Your task to perform on an android device: Add "razer blade" to the cart on costco.com Image 0: 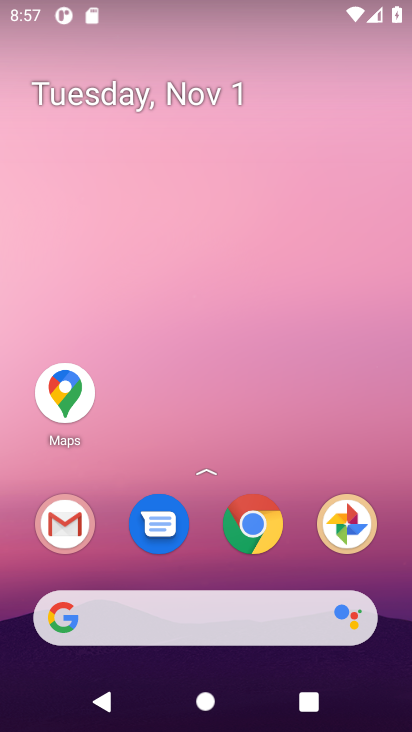
Step 0: press home button
Your task to perform on an android device: Add "razer blade" to the cart on costco.com Image 1: 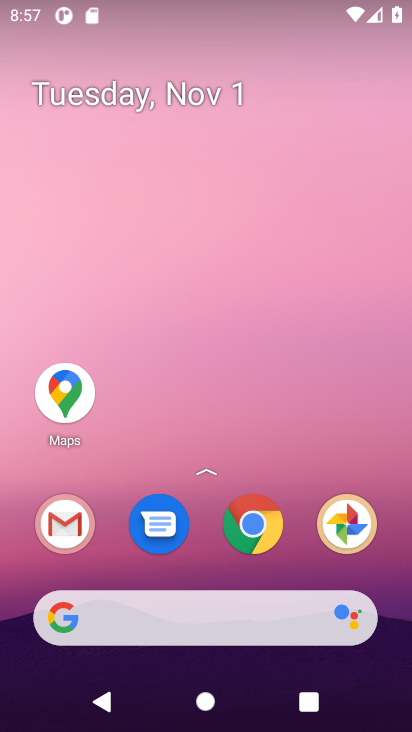
Step 1: click (95, 610)
Your task to perform on an android device: Add "razer blade" to the cart on costco.com Image 2: 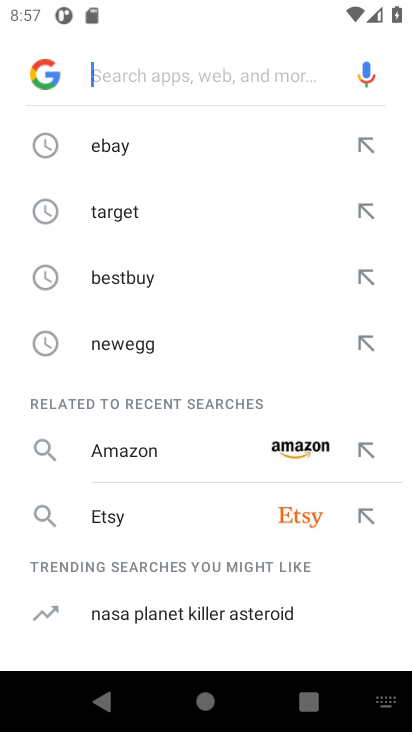
Step 2: type "costco.com"
Your task to perform on an android device: Add "razer blade" to the cart on costco.com Image 3: 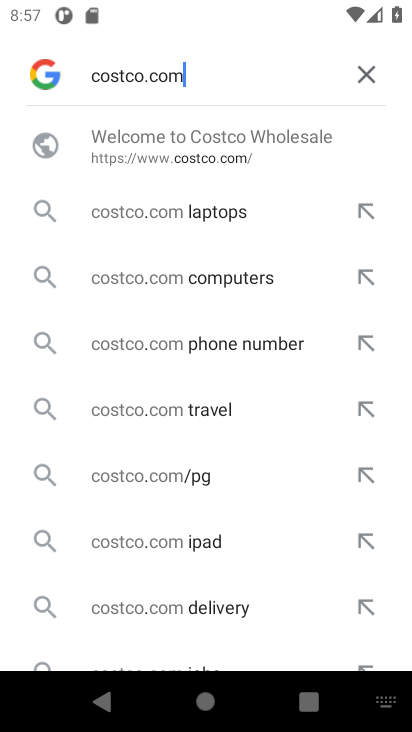
Step 3: press enter
Your task to perform on an android device: Add "razer blade" to the cart on costco.com Image 4: 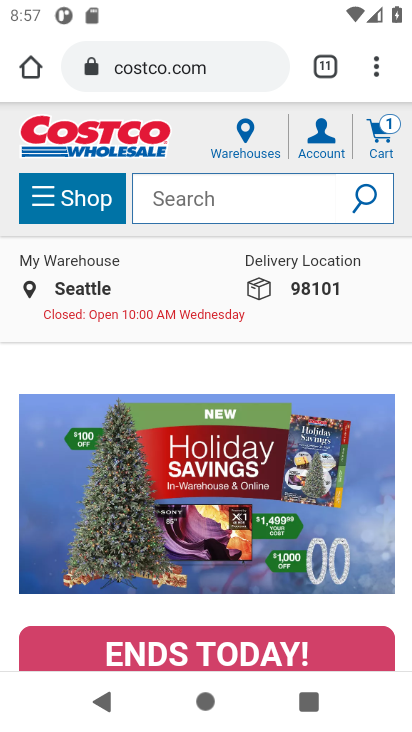
Step 4: click (169, 201)
Your task to perform on an android device: Add "razer blade" to the cart on costco.com Image 5: 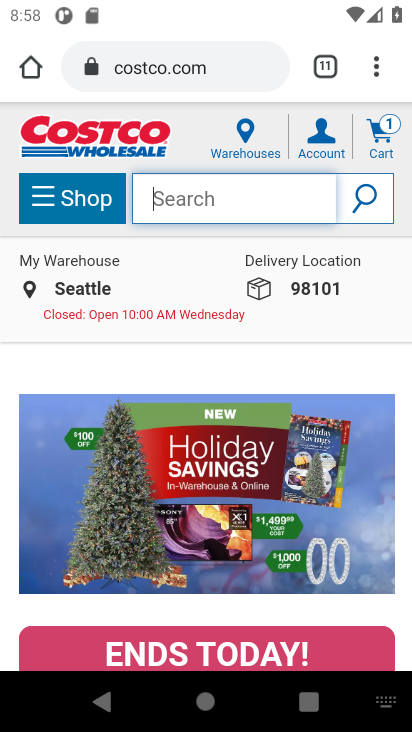
Step 5: type "razer blade"
Your task to perform on an android device: Add "razer blade" to the cart on costco.com Image 6: 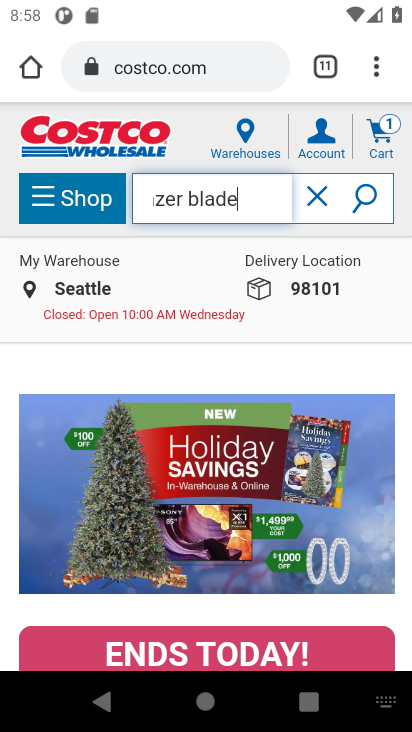
Step 6: press enter
Your task to perform on an android device: Add "razer blade" to the cart on costco.com Image 7: 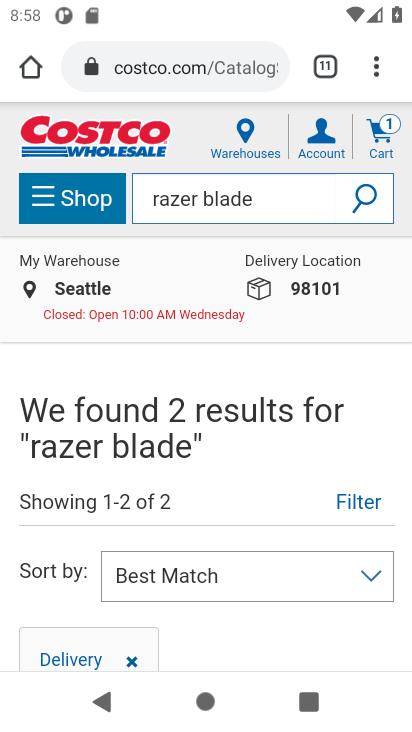
Step 7: drag from (330, 554) to (337, 313)
Your task to perform on an android device: Add "razer blade" to the cart on costco.com Image 8: 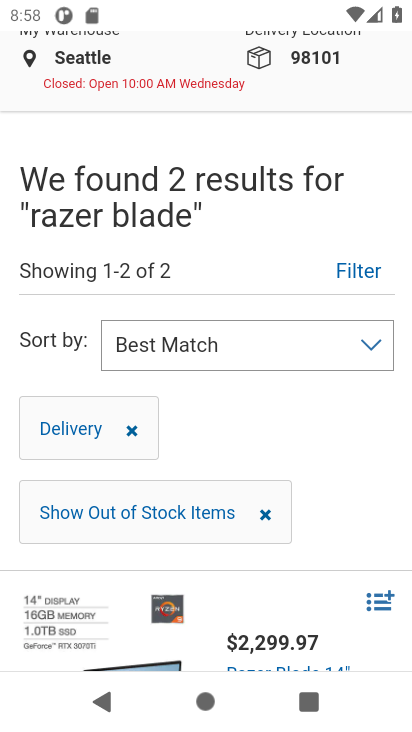
Step 8: drag from (292, 549) to (303, 312)
Your task to perform on an android device: Add "razer blade" to the cart on costco.com Image 9: 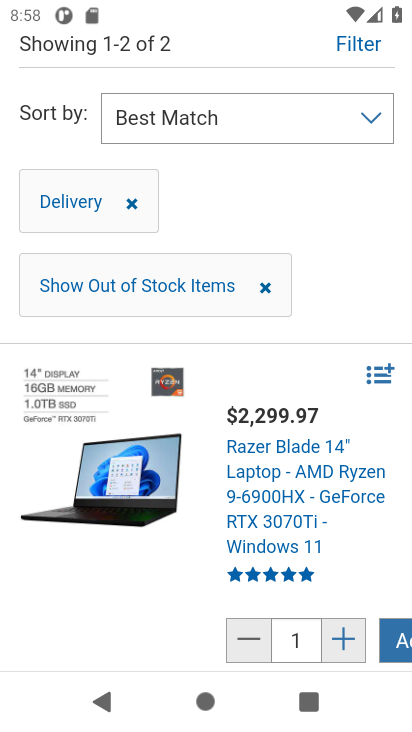
Step 9: drag from (238, 550) to (267, 344)
Your task to perform on an android device: Add "razer blade" to the cart on costco.com Image 10: 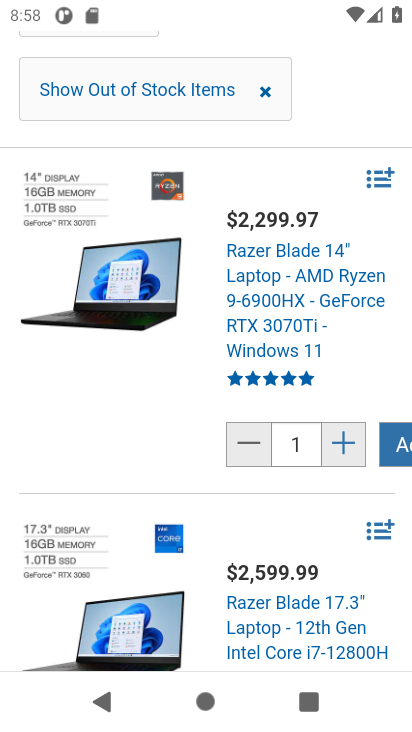
Step 10: click (399, 448)
Your task to perform on an android device: Add "razer blade" to the cart on costco.com Image 11: 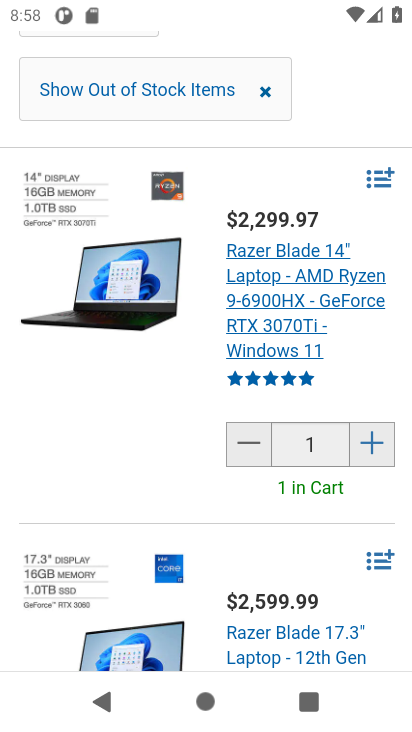
Step 11: task complete